Your task to perform on an android device: toggle javascript in the chrome app Image 0: 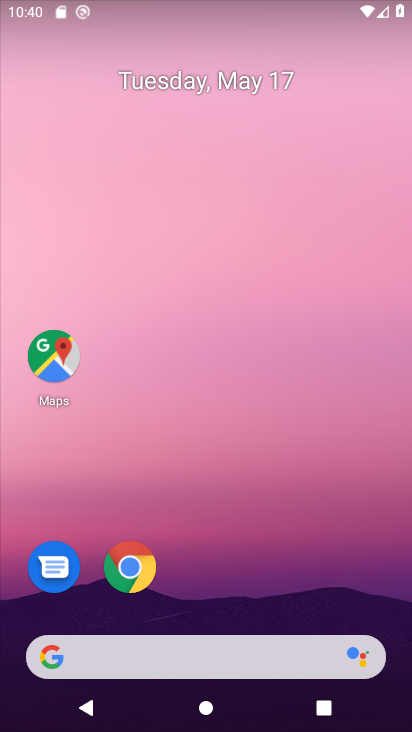
Step 0: click (135, 567)
Your task to perform on an android device: toggle javascript in the chrome app Image 1: 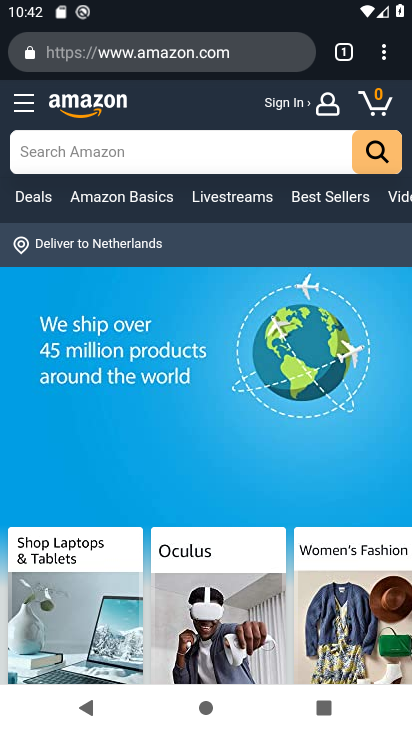
Step 1: click (392, 59)
Your task to perform on an android device: toggle javascript in the chrome app Image 2: 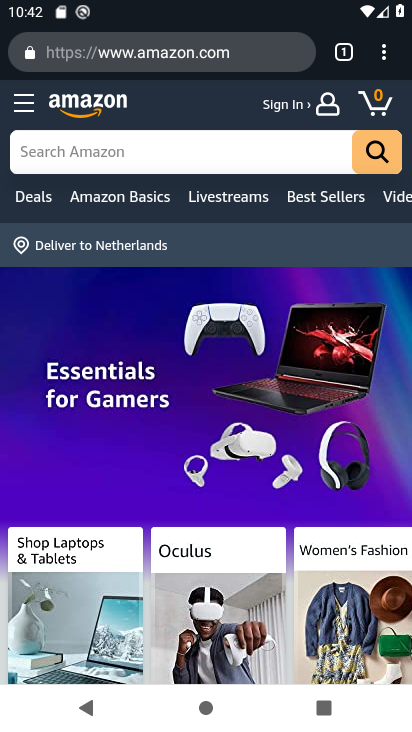
Step 2: click (385, 51)
Your task to perform on an android device: toggle javascript in the chrome app Image 3: 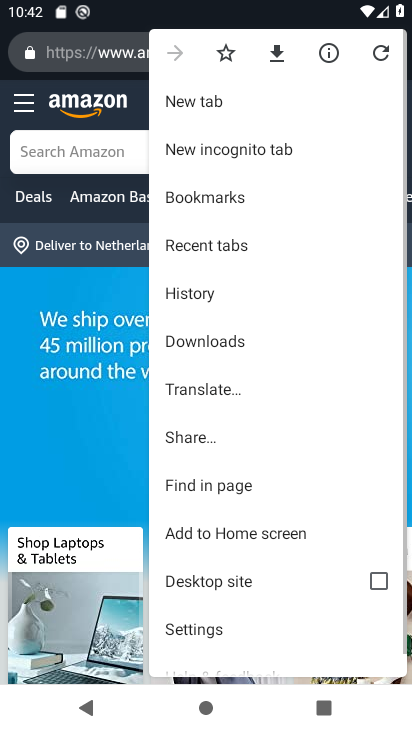
Step 3: drag from (263, 588) to (312, 153)
Your task to perform on an android device: toggle javascript in the chrome app Image 4: 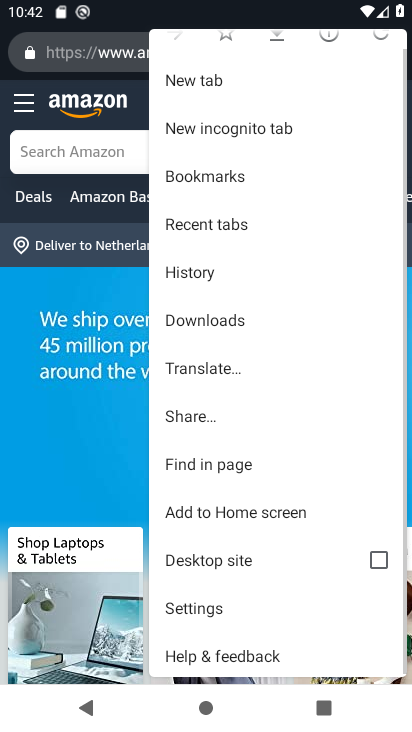
Step 4: click (226, 592)
Your task to perform on an android device: toggle javascript in the chrome app Image 5: 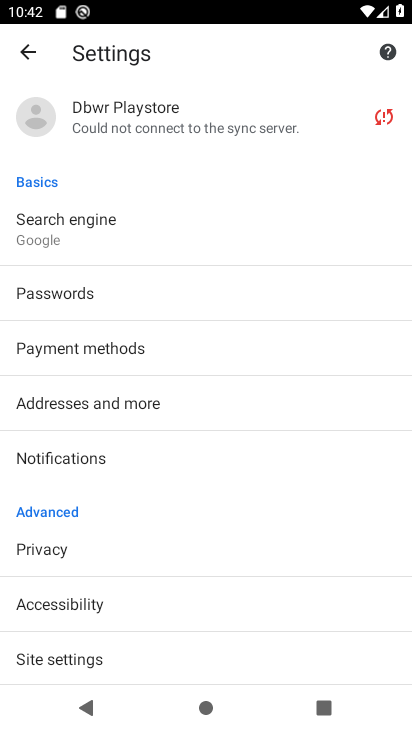
Step 5: click (92, 647)
Your task to perform on an android device: toggle javascript in the chrome app Image 6: 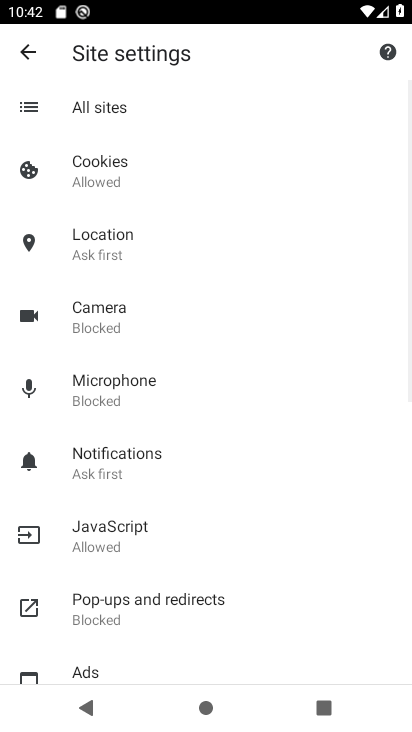
Step 6: click (96, 537)
Your task to perform on an android device: toggle javascript in the chrome app Image 7: 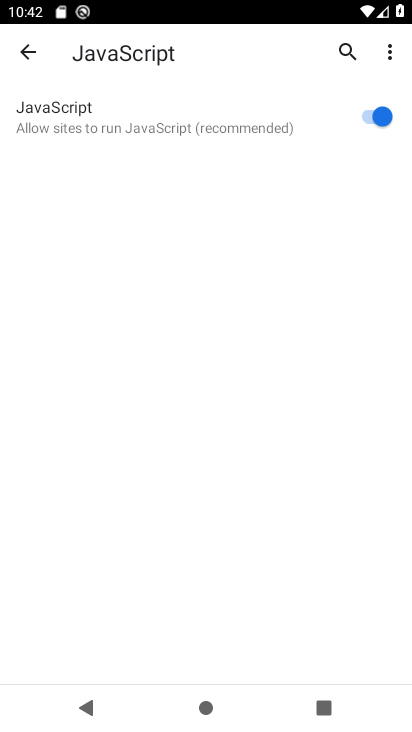
Step 7: click (378, 121)
Your task to perform on an android device: toggle javascript in the chrome app Image 8: 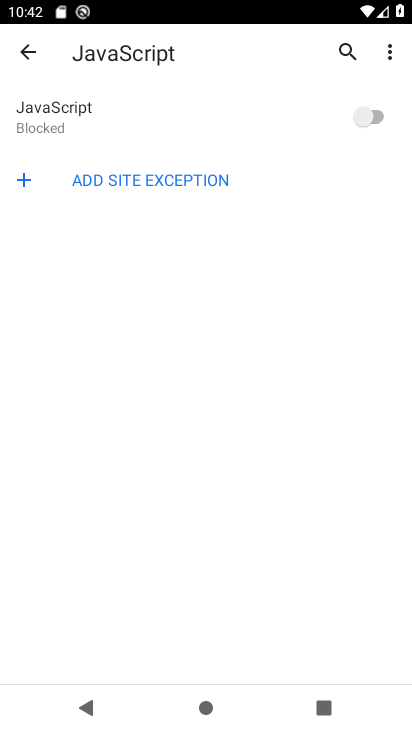
Step 8: task complete